Your task to perform on an android device: Open the Play Movies app and select the watchlist tab. Image 0: 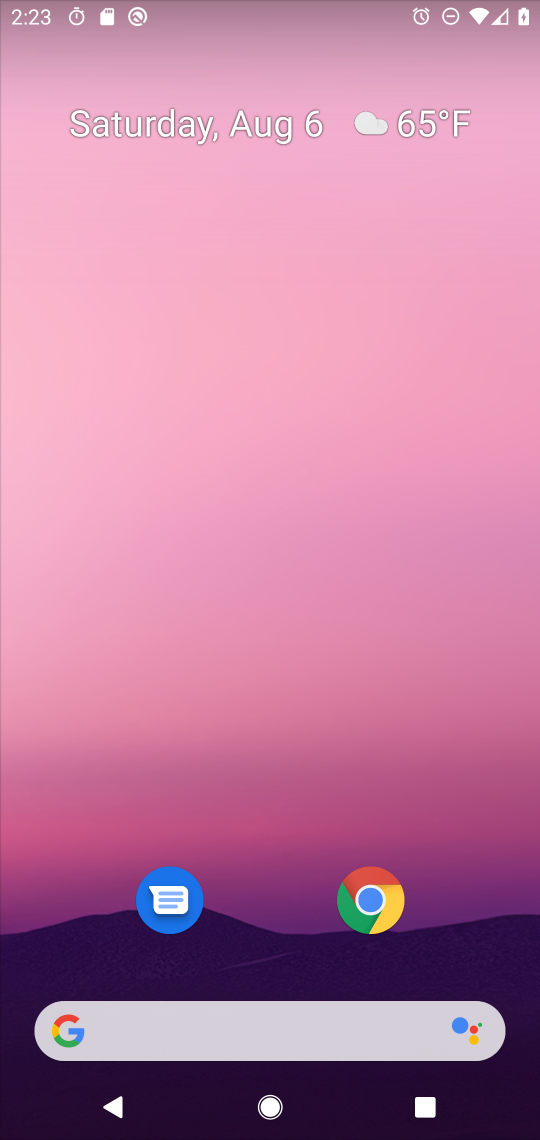
Step 0: drag from (310, 611) to (320, 134)
Your task to perform on an android device: Open the Play Movies app and select the watchlist tab. Image 1: 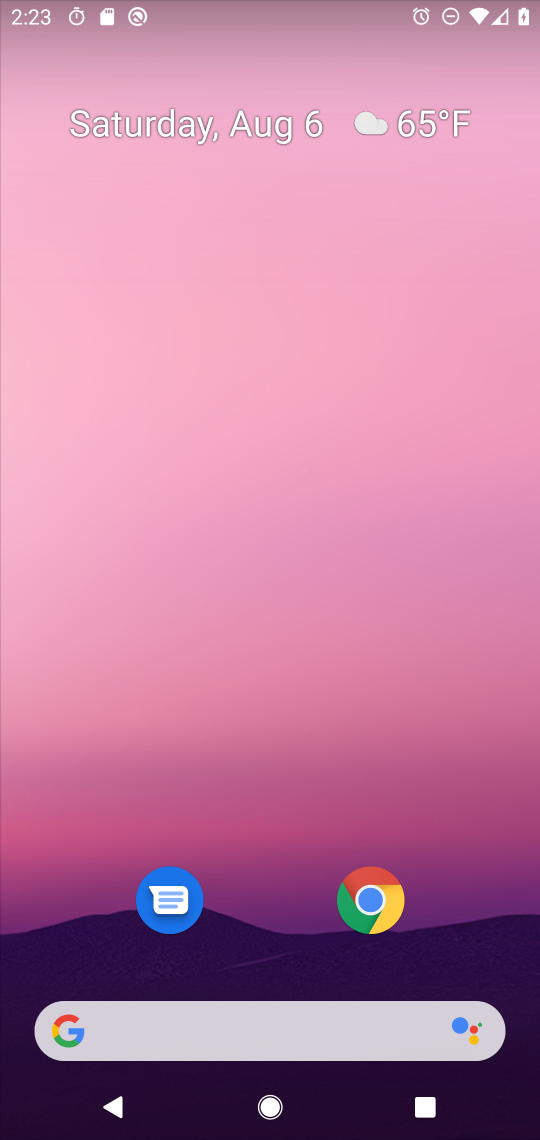
Step 1: drag from (282, 966) to (304, 19)
Your task to perform on an android device: Open the Play Movies app and select the watchlist tab. Image 2: 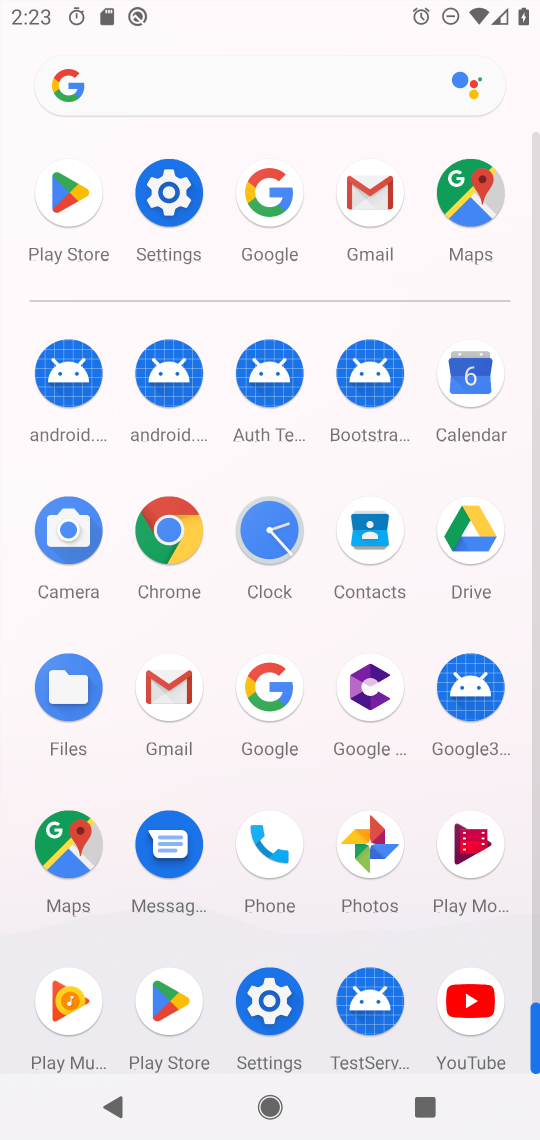
Step 2: click (466, 843)
Your task to perform on an android device: Open the Play Movies app and select the watchlist tab. Image 3: 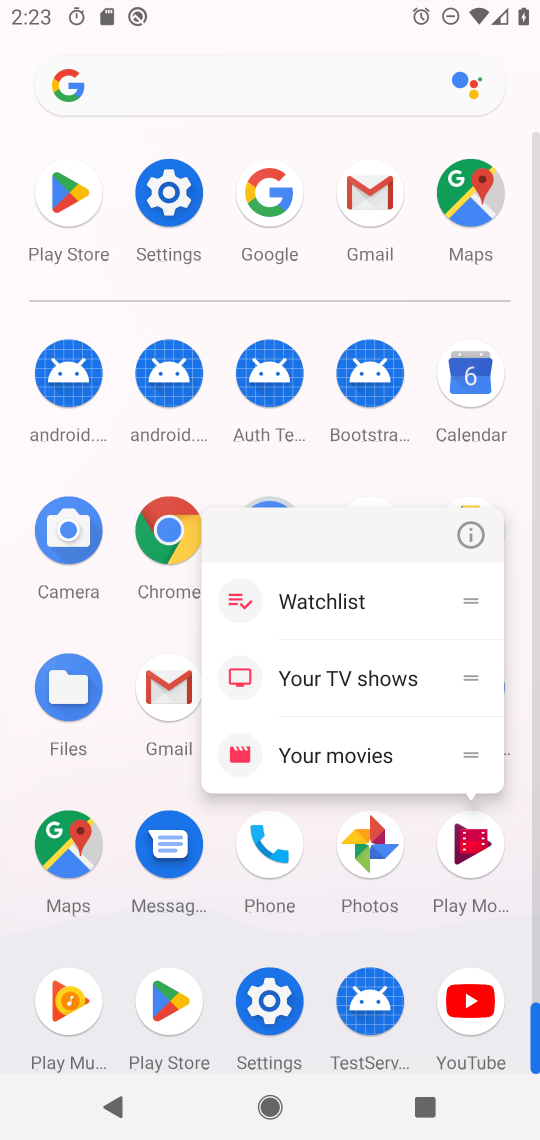
Step 3: click (477, 848)
Your task to perform on an android device: Open the Play Movies app and select the watchlist tab. Image 4: 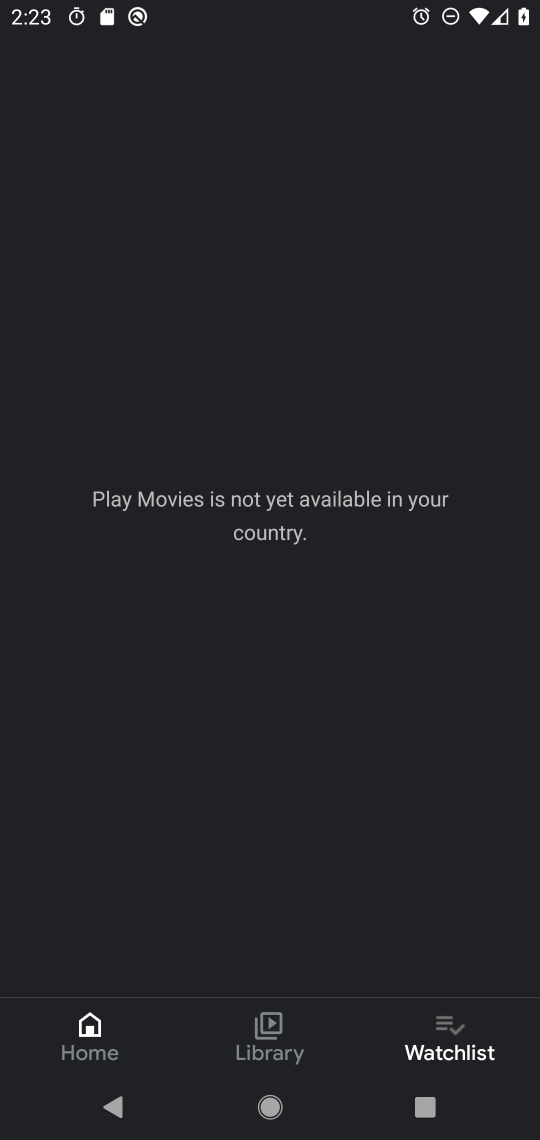
Step 4: task complete